Your task to perform on an android device: Open Wikipedia Image 0: 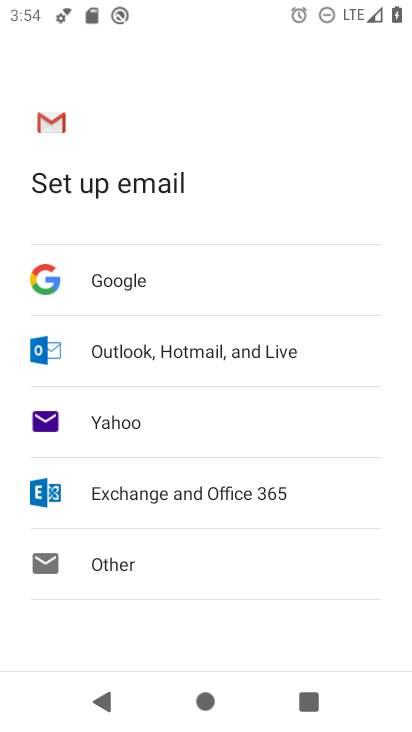
Step 0: press home button
Your task to perform on an android device: Open Wikipedia Image 1: 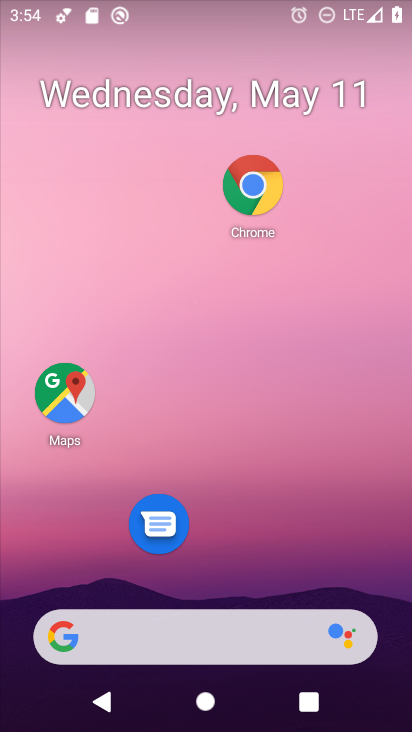
Step 1: click (267, 192)
Your task to perform on an android device: Open Wikipedia Image 2: 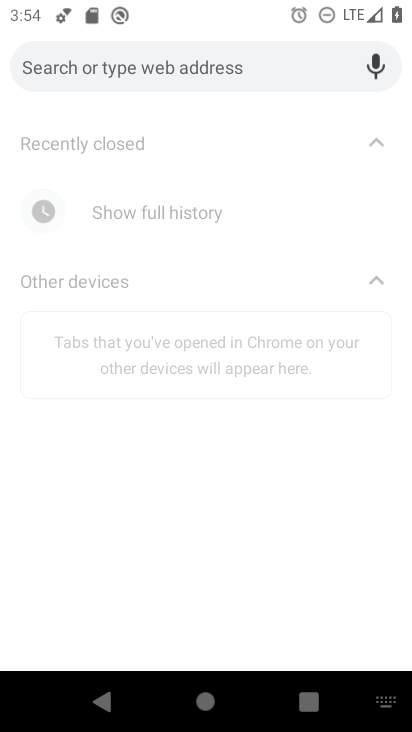
Step 2: press back button
Your task to perform on an android device: Open Wikipedia Image 3: 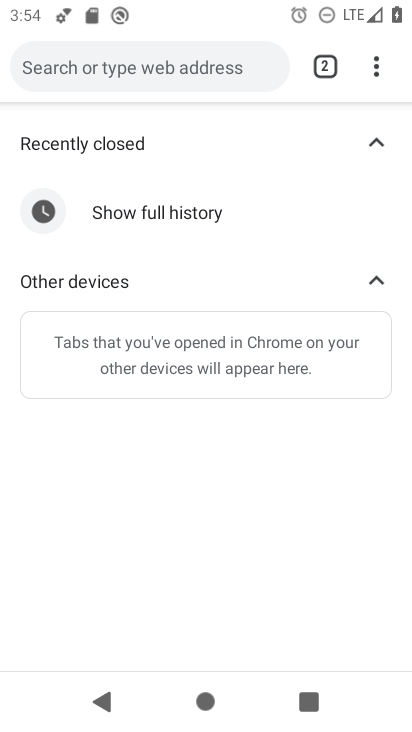
Step 3: press back button
Your task to perform on an android device: Open Wikipedia Image 4: 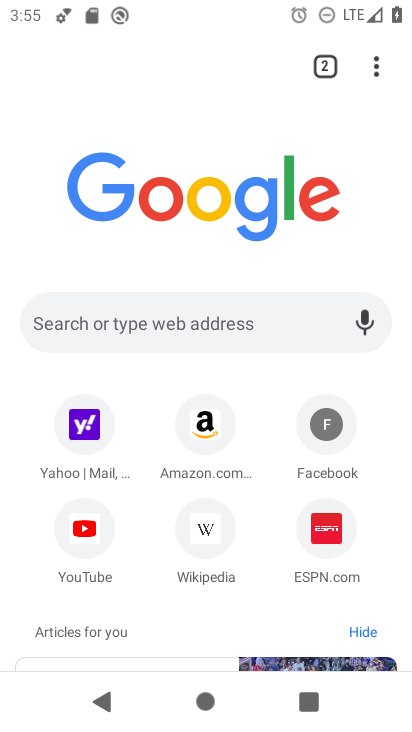
Step 4: click (209, 526)
Your task to perform on an android device: Open Wikipedia Image 5: 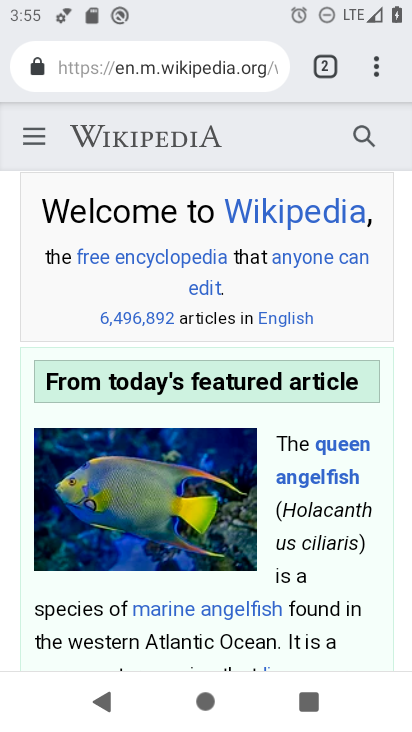
Step 5: task complete